Your task to perform on an android device: Open accessibility settings Image 0: 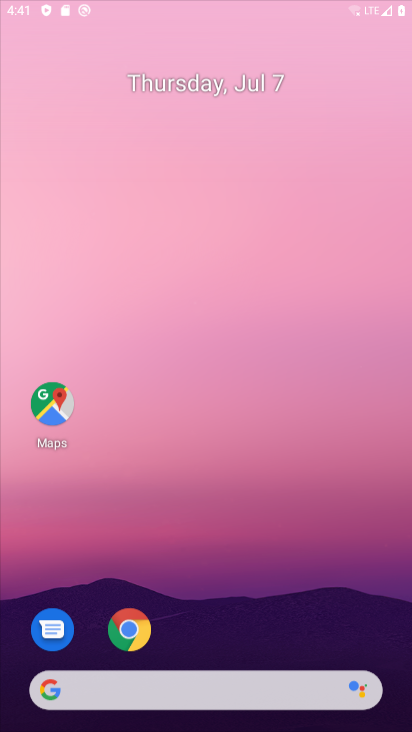
Step 0: drag from (261, 564) to (205, 222)
Your task to perform on an android device: Open accessibility settings Image 1: 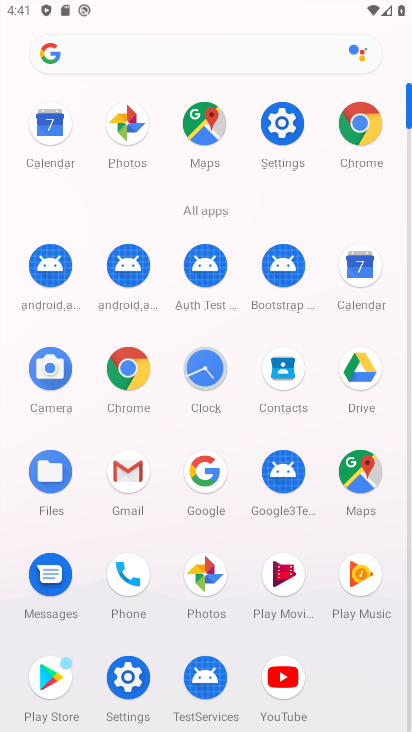
Step 1: click (279, 133)
Your task to perform on an android device: Open accessibility settings Image 2: 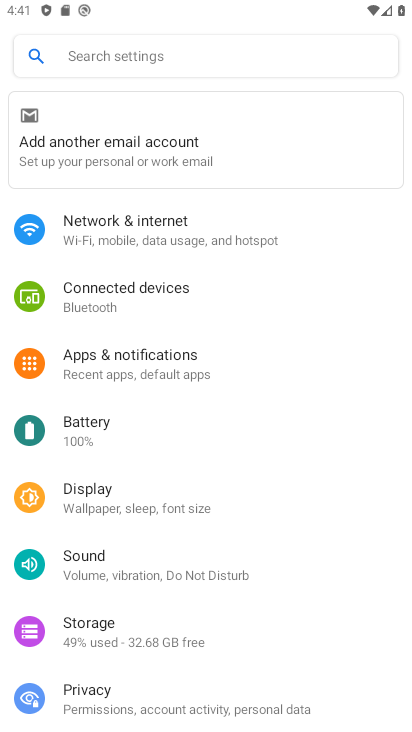
Step 2: drag from (162, 556) to (144, 206)
Your task to perform on an android device: Open accessibility settings Image 3: 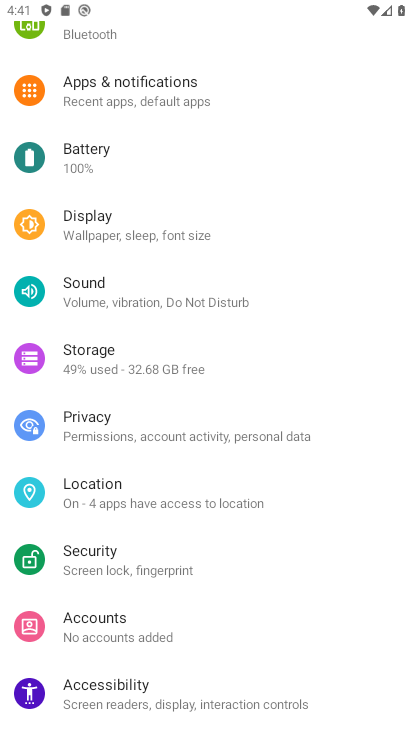
Step 3: click (115, 704)
Your task to perform on an android device: Open accessibility settings Image 4: 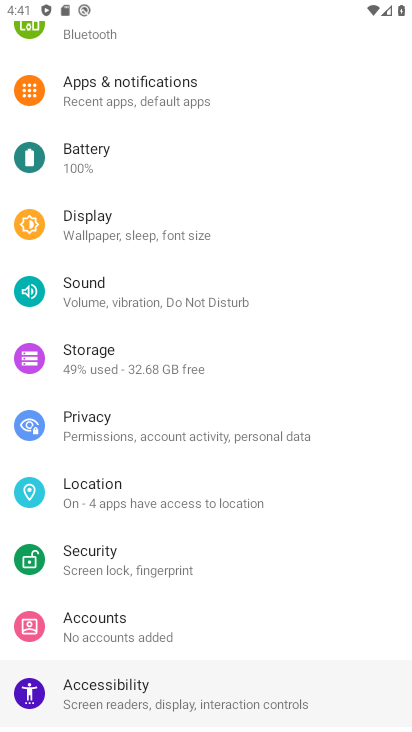
Step 4: click (127, 696)
Your task to perform on an android device: Open accessibility settings Image 5: 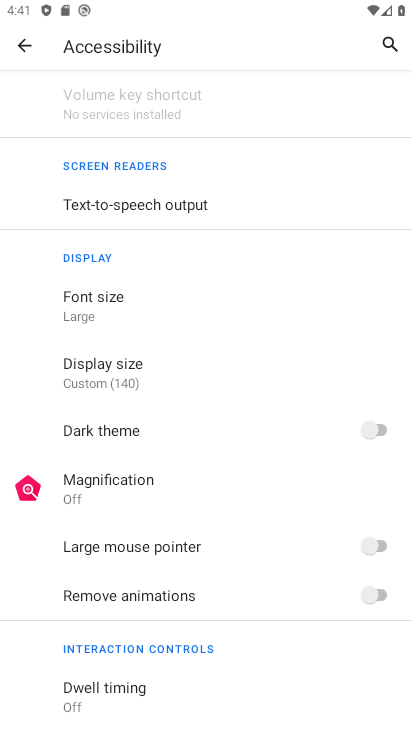
Step 5: task complete